Your task to perform on an android device: Open calendar and show me the first week of next month Image 0: 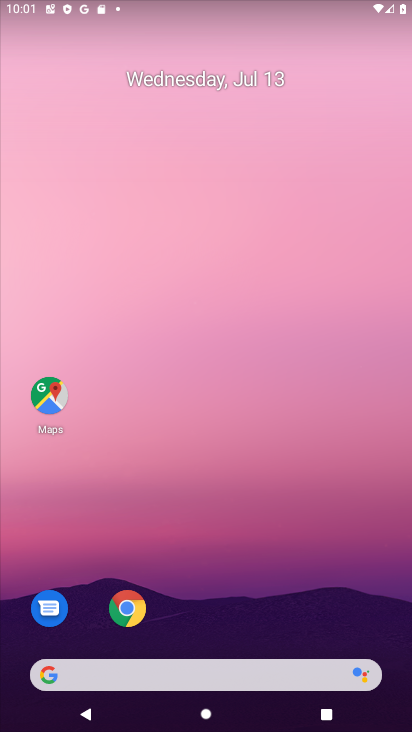
Step 0: drag from (219, 685) to (185, 31)
Your task to perform on an android device: Open calendar and show me the first week of next month Image 1: 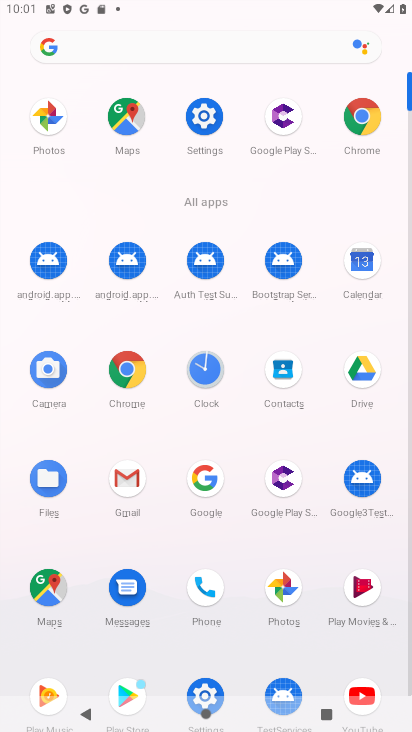
Step 1: click (361, 262)
Your task to perform on an android device: Open calendar and show me the first week of next month Image 2: 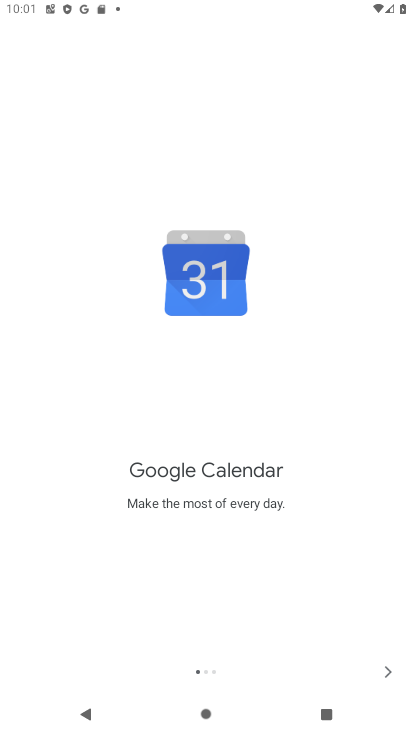
Step 2: click (389, 666)
Your task to perform on an android device: Open calendar and show me the first week of next month Image 3: 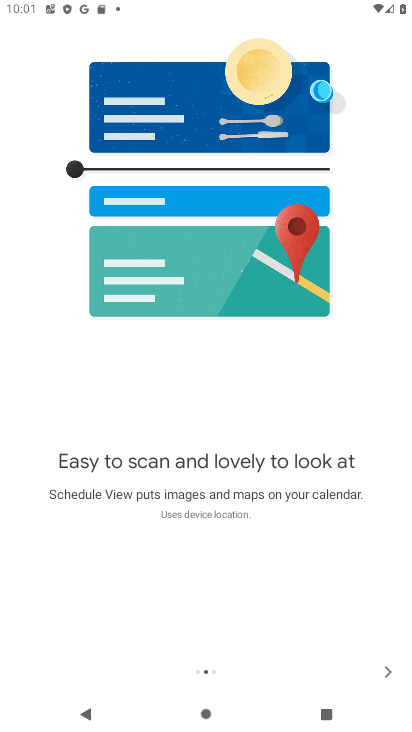
Step 3: click (389, 666)
Your task to perform on an android device: Open calendar and show me the first week of next month Image 4: 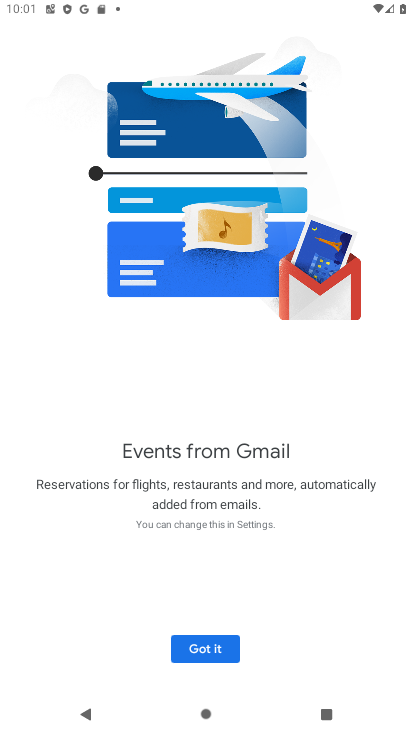
Step 4: click (214, 652)
Your task to perform on an android device: Open calendar and show me the first week of next month Image 5: 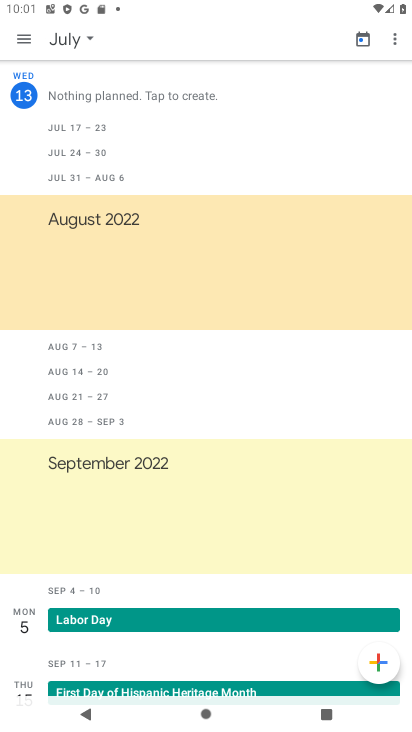
Step 5: click (80, 38)
Your task to perform on an android device: Open calendar and show me the first week of next month Image 6: 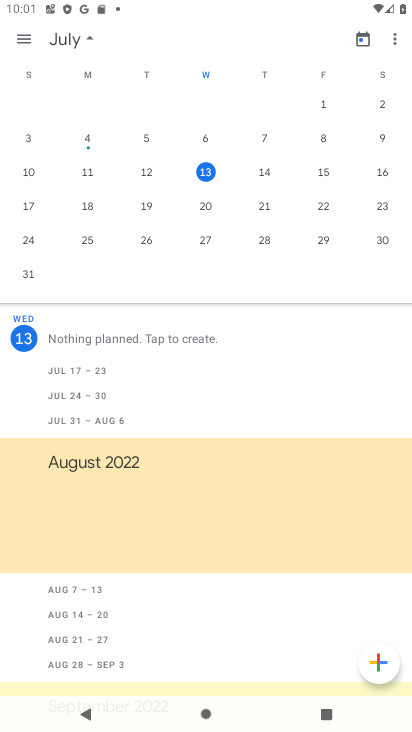
Step 6: drag from (387, 215) to (20, 193)
Your task to perform on an android device: Open calendar and show me the first week of next month Image 7: 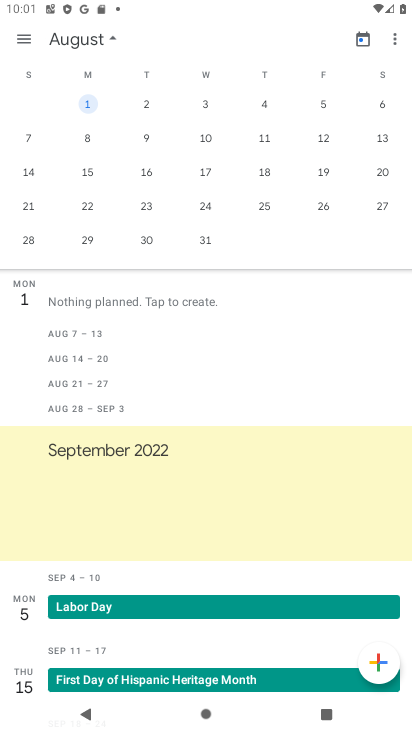
Step 7: click (87, 98)
Your task to perform on an android device: Open calendar and show me the first week of next month Image 8: 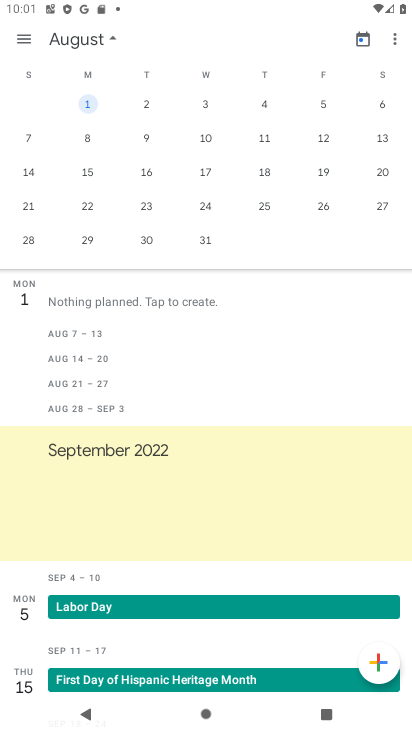
Step 8: click (27, 33)
Your task to perform on an android device: Open calendar and show me the first week of next month Image 9: 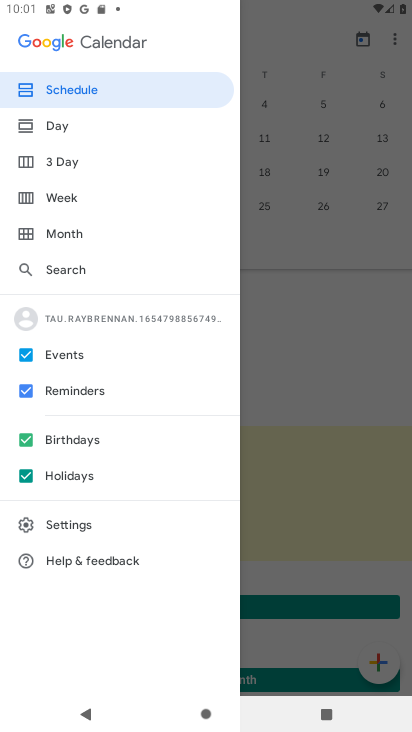
Step 9: click (72, 198)
Your task to perform on an android device: Open calendar and show me the first week of next month Image 10: 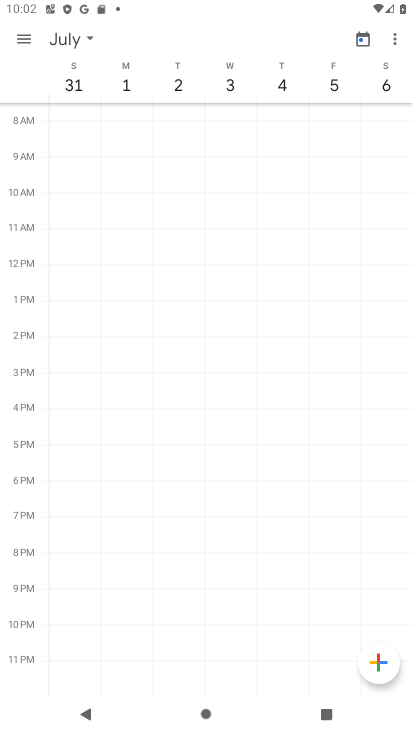
Step 10: task complete